Your task to perform on an android device: change notification settings in the gmail app Image 0: 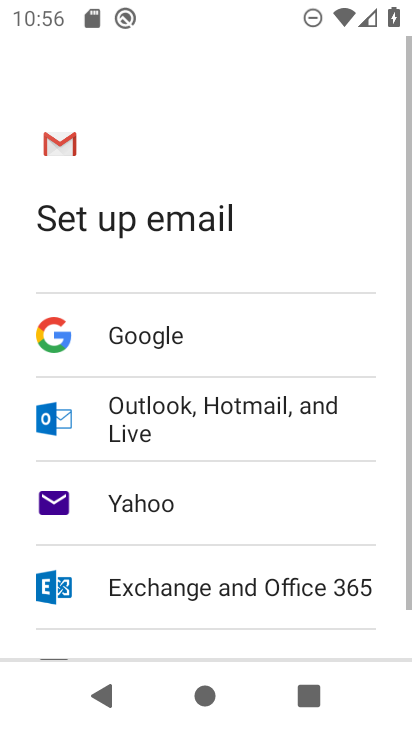
Step 0: drag from (228, 358) to (254, 127)
Your task to perform on an android device: change notification settings in the gmail app Image 1: 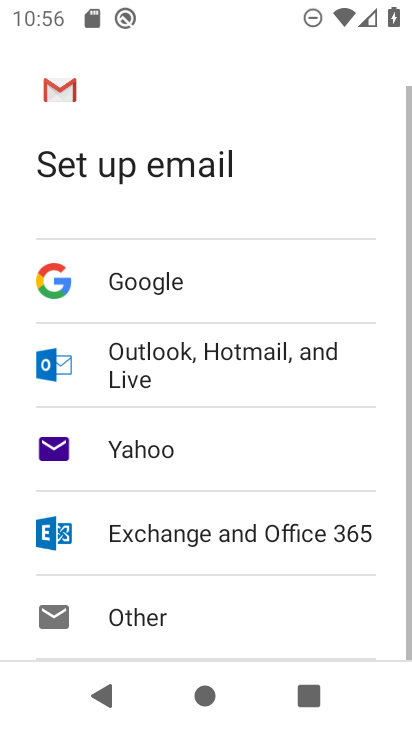
Step 1: press back button
Your task to perform on an android device: change notification settings in the gmail app Image 2: 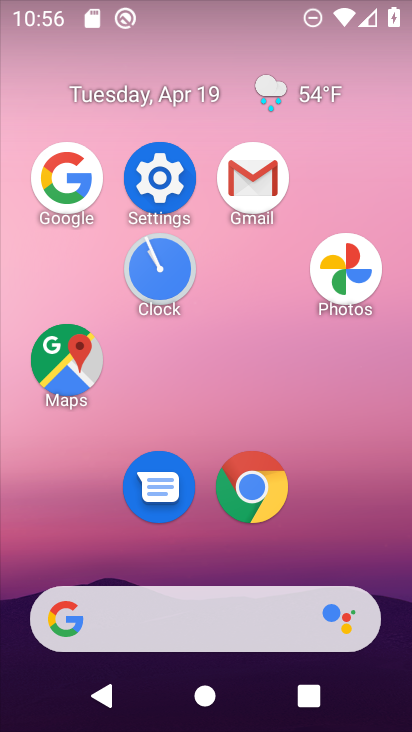
Step 2: click (265, 164)
Your task to perform on an android device: change notification settings in the gmail app Image 3: 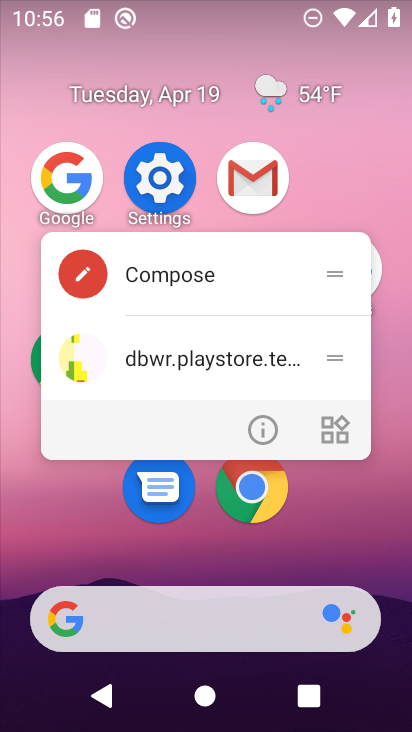
Step 3: click (265, 164)
Your task to perform on an android device: change notification settings in the gmail app Image 4: 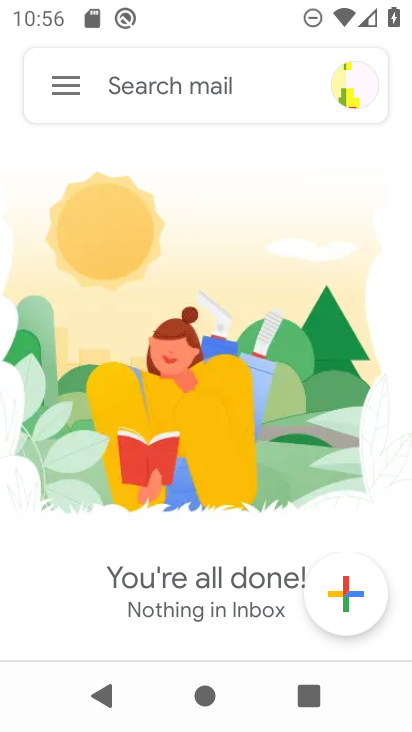
Step 4: click (66, 79)
Your task to perform on an android device: change notification settings in the gmail app Image 5: 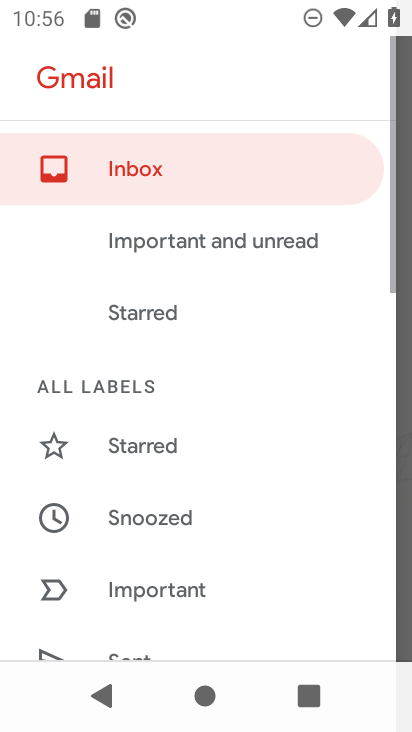
Step 5: drag from (181, 592) to (211, 88)
Your task to perform on an android device: change notification settings in the gmail app Image 6: 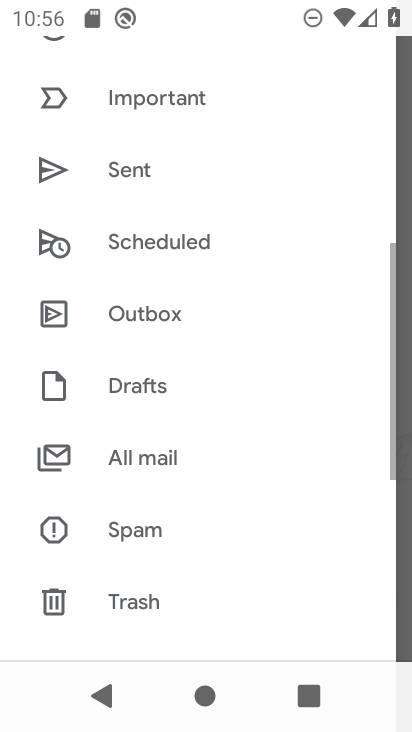
Step 6: drag from (186, 583) to (230, 129)
Your task to perform on an android device: change notification settings in the gmail app Image 7: 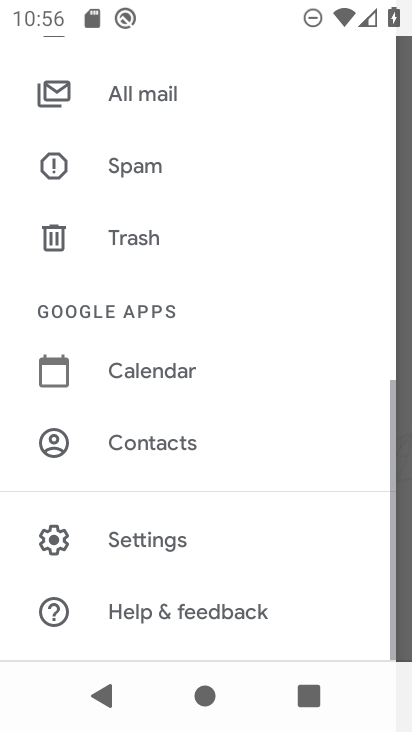
Step 7: click (182, 548)
Your task to perform on an android device: change notification settings in the gmail app Image 8: 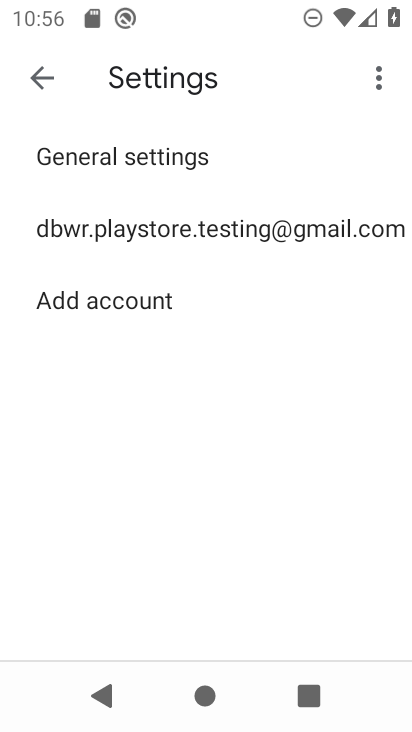
Step 8: click (266, 212)
Your task to perform on an android device: change notification settings in the gmail app Image 9: 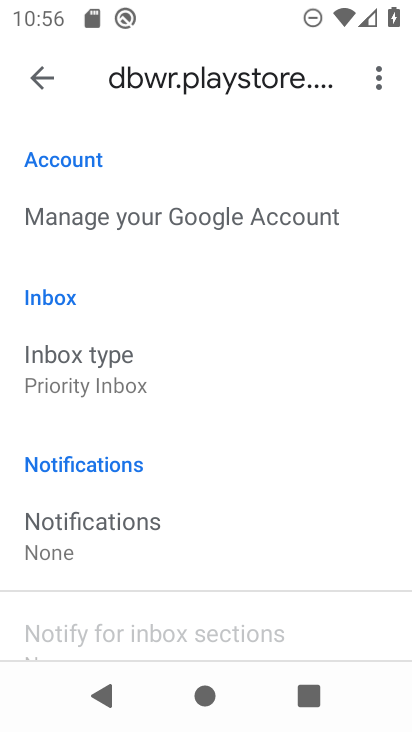
Step 9: click (124, 530)
Your task to perform on an android device: change notification settings in the gmail app Image 10: 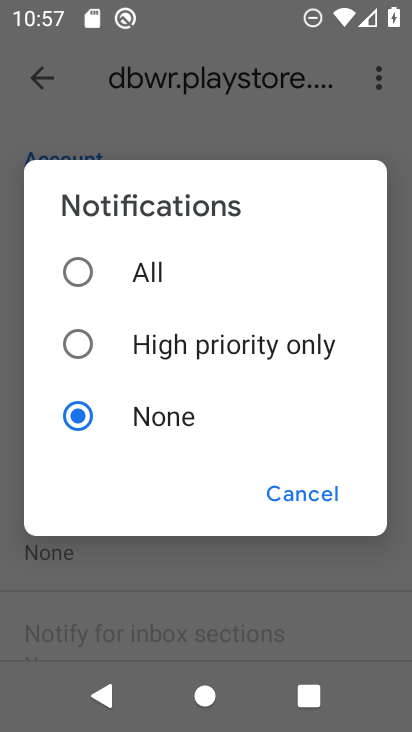
Step 10: click (143, 270)
Your task to perform on an android device: change notification settings in the gmail app Image 11: 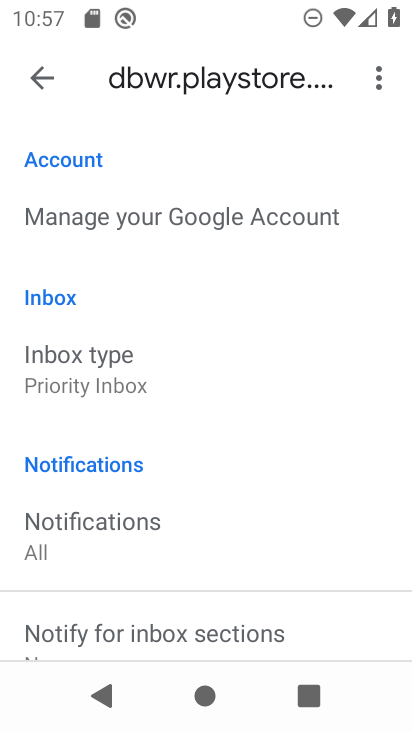
Step 11: task complete